Your task to perform on an android device: show emergency info Image 0: 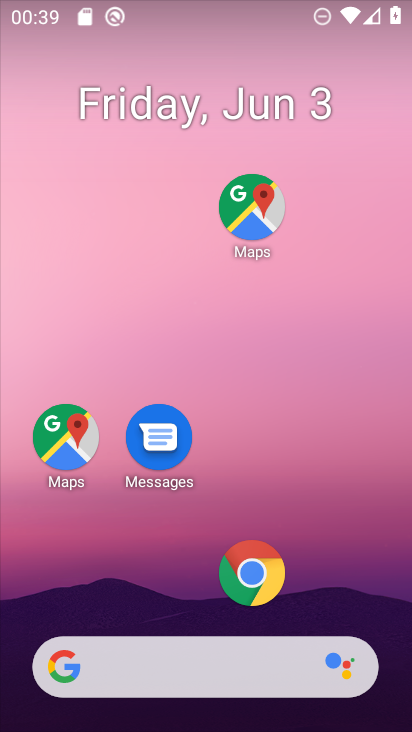
Step 0: drag from (289, 577) to (288, 162)
Your task to perform on an android device: show emergency info Image 1: 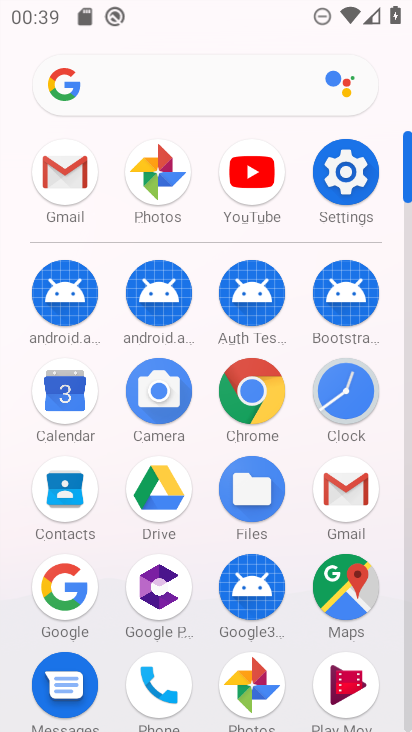
Step 1: click (345, 173)
Your task to perform on an android device: show emergency info Image 2: 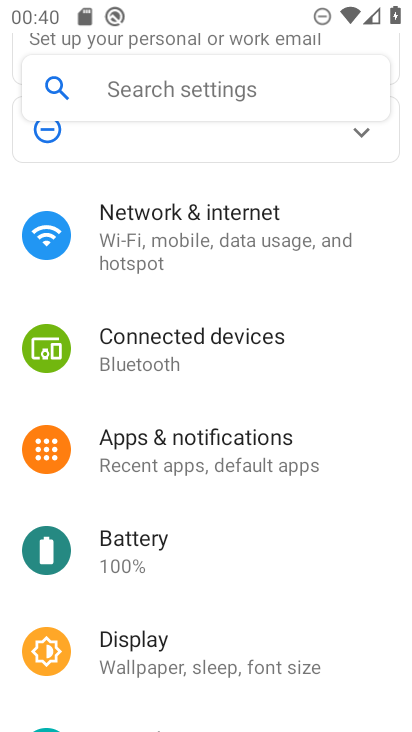
Step 2: drag from (247, 571) to (255, 110)
Your task to perform on an android device: show emergency info Image 3: 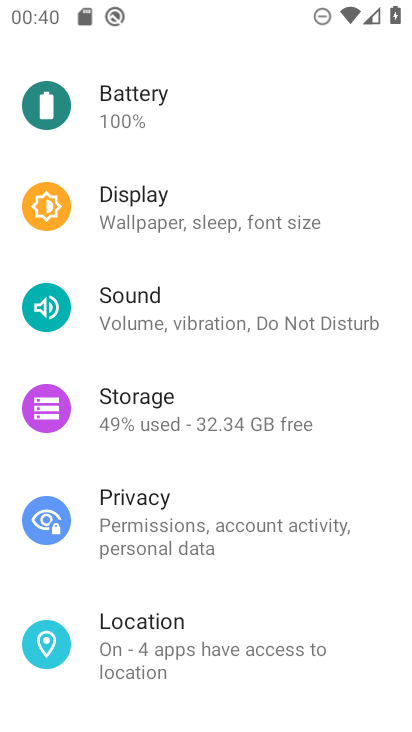
Step 3: drag from (234, 573) to (213, 251)
Your task to perform on an android device: show emergency info Image 4: 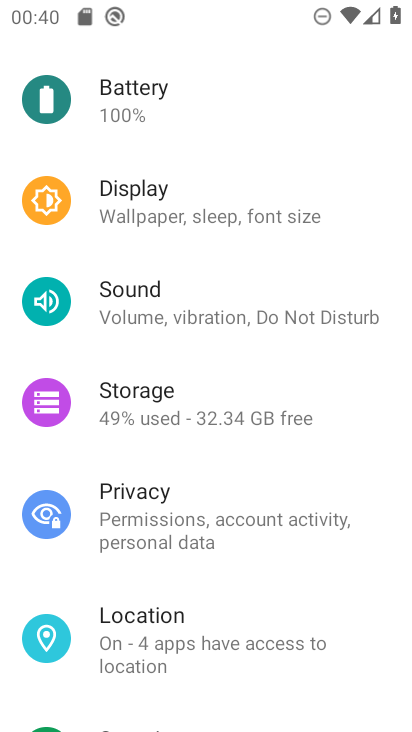
Step 4: drag from (224, 596) to (251, 129)
Your task to perform on an android device: show emergency info Image 5: 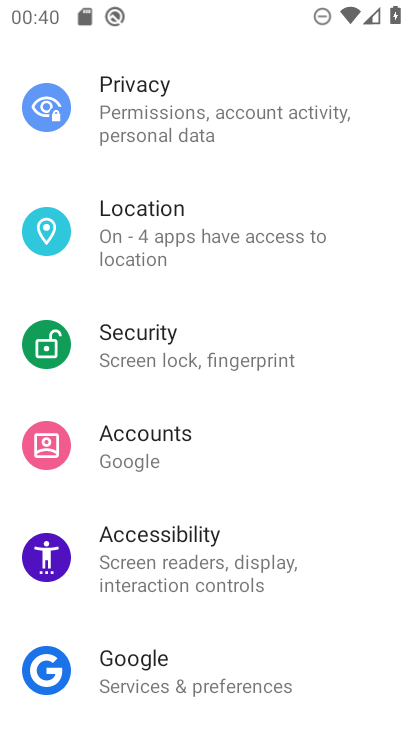
Step 5: drag from (280, 608) to (316, 53)
Your task to perform on an android device: show emergency info Image 6: 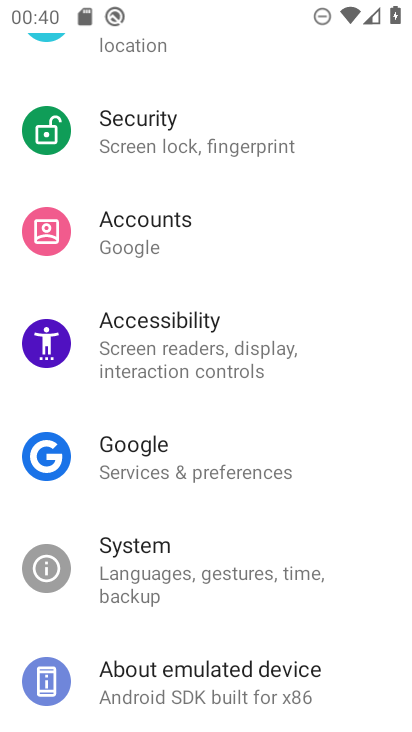
Step 6: click (217, 685)
Your task to perform on an android device: show emergency info Image 7: 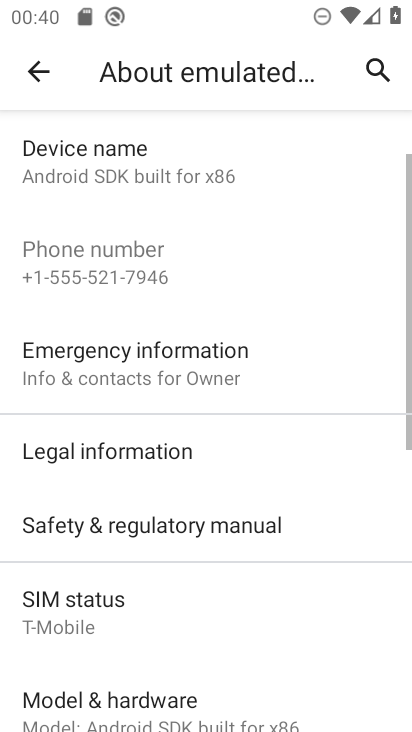
Step 7: click (189, 366)
Your task to perform on an android device: show emergency info Image 8: 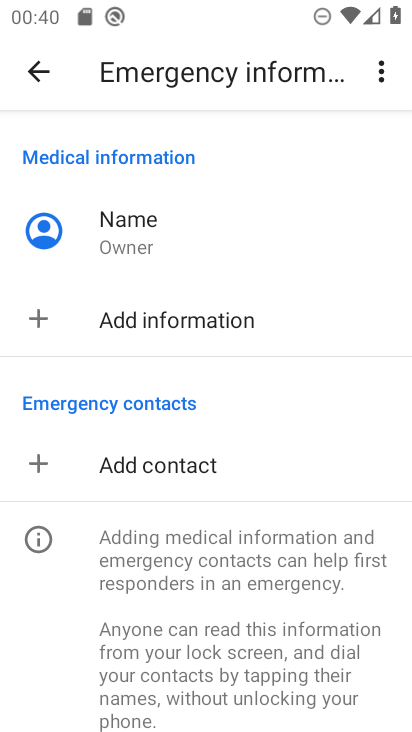
Step 8: task complete